Your task to perform on an android device: Show the shopping cart on costco. Add razer kraken to the cart on costco Image 0: 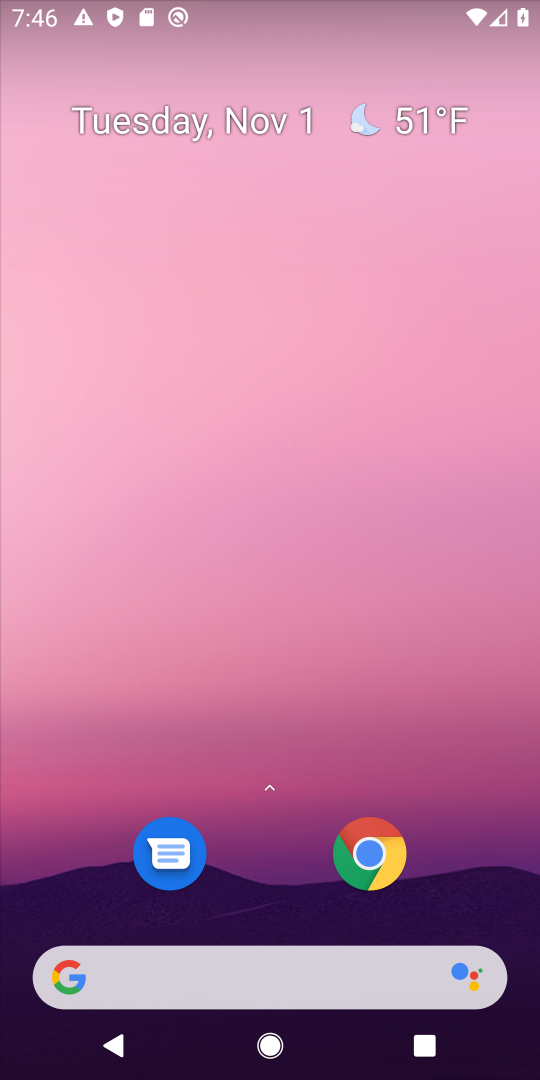
Step 0: click (373, 959)
Your task to perform on an android device: Show the shopping cart on costco. Add razer kraken to the cart on costco Image 1: 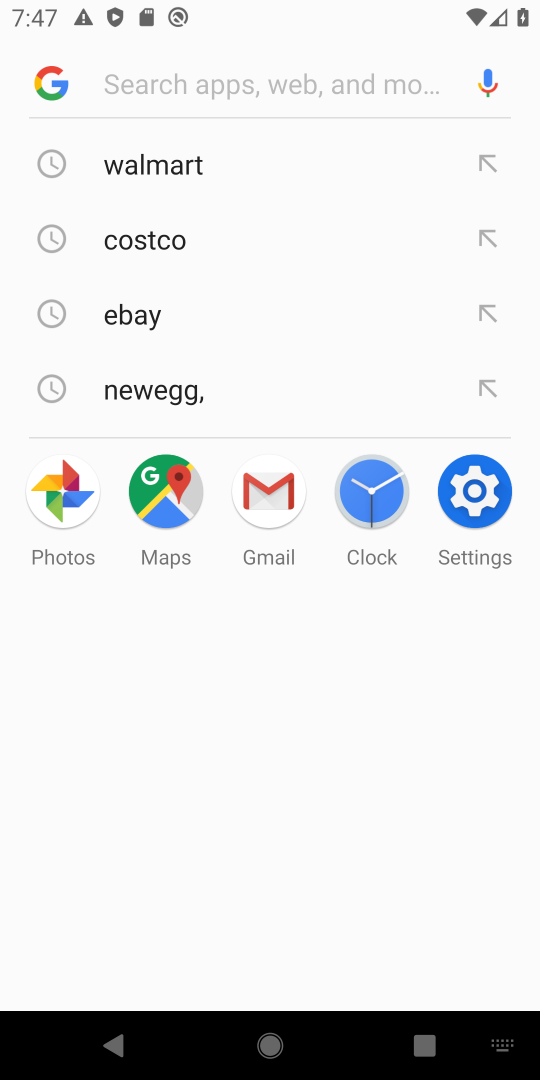
Step 1: type "costco"
Your task to perform on an android device: Show the shopping cart on costco. Add razer kraken to the cart on costco Image 2: 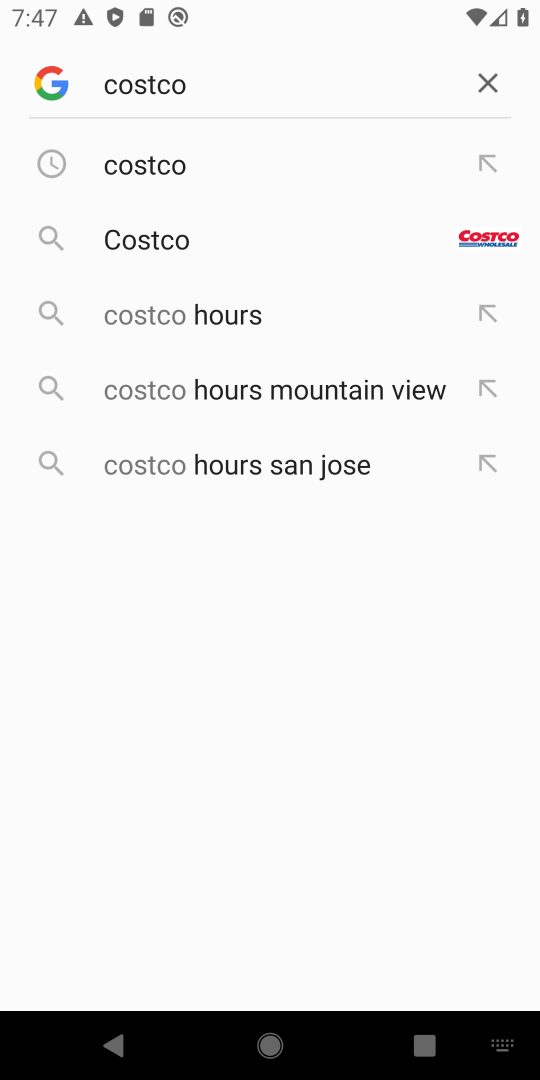
Step 2: click (171, 181)
Your task to perform on an android device: Show the shopping cart on costco. Add razer kraken to the cart on costco Image 3: 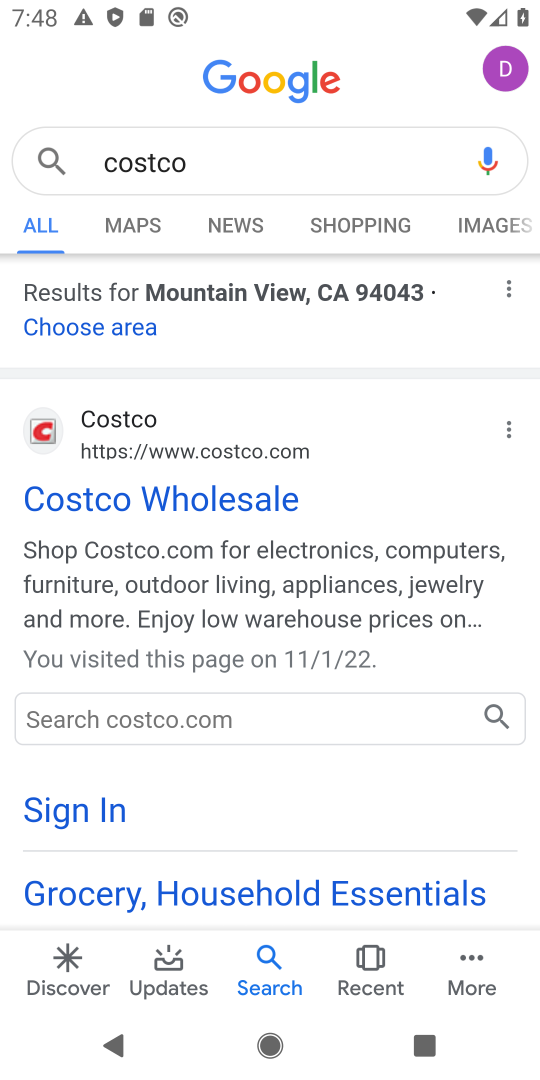
Step 3: click (274, 491)
Your task to perform on an android device: Show the shopping cart on costco. Add razer kraken to the cart on costco Image 4: 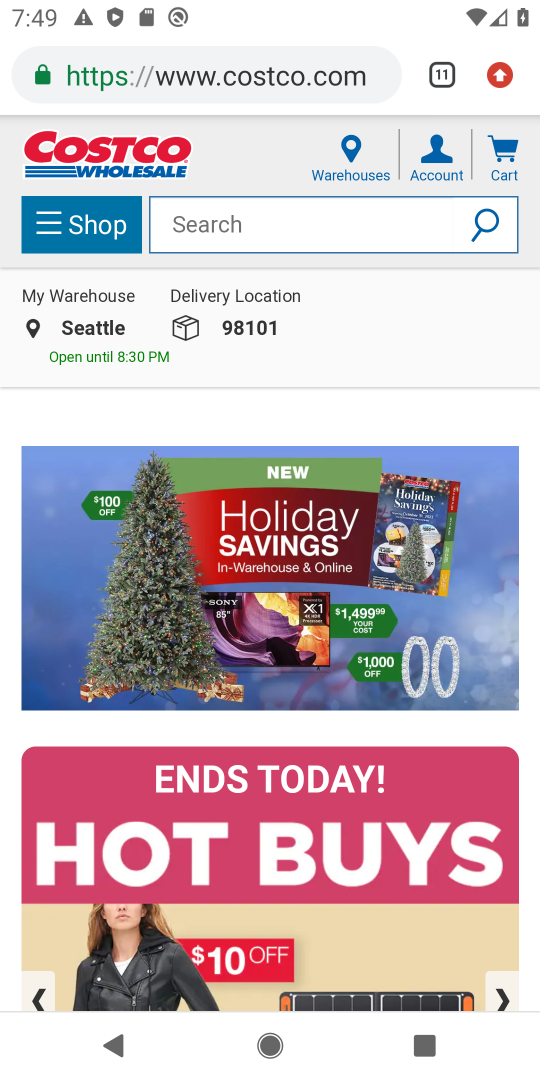
Step 4: click (222, 221)
Your task to perform on an android device: Show the shopping cart on costco. Add razer kraken to the cart on costco Image 5: 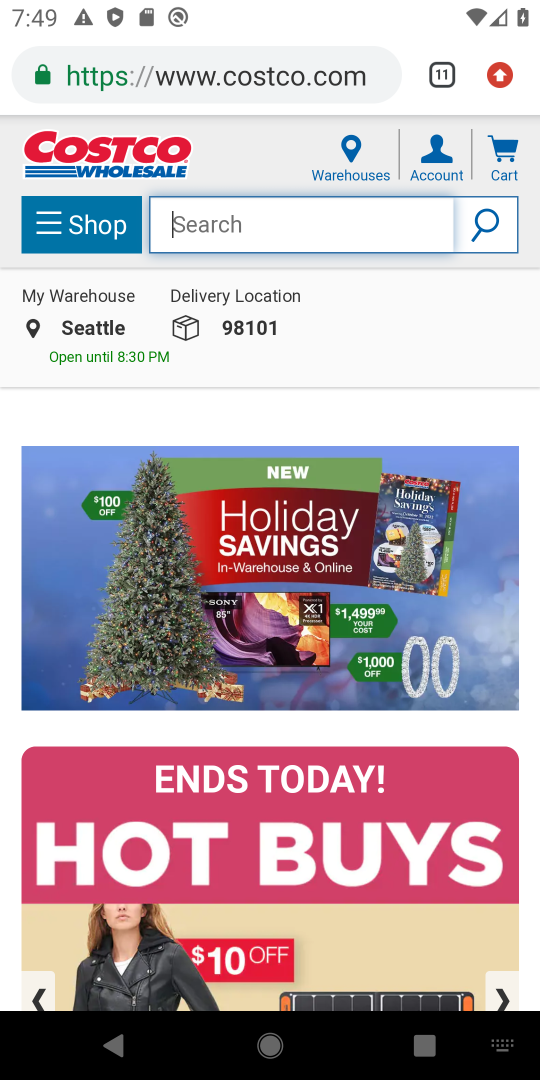
Step 5: type "razer karken"
Your task to perform on an android device: Show the shopping cart on costco. Add razer kraken to the cart on costco Image 6: 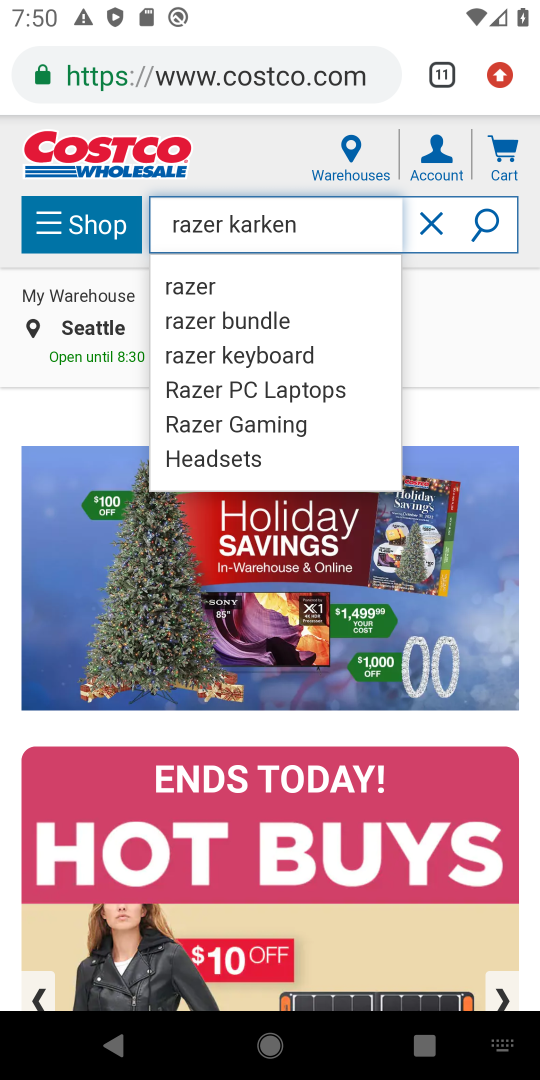
Step 6: click (467, 233)
Your task to perform on an android device: Show the shopping cart on costco. Add razer kraken to the cart on costco Image 7: 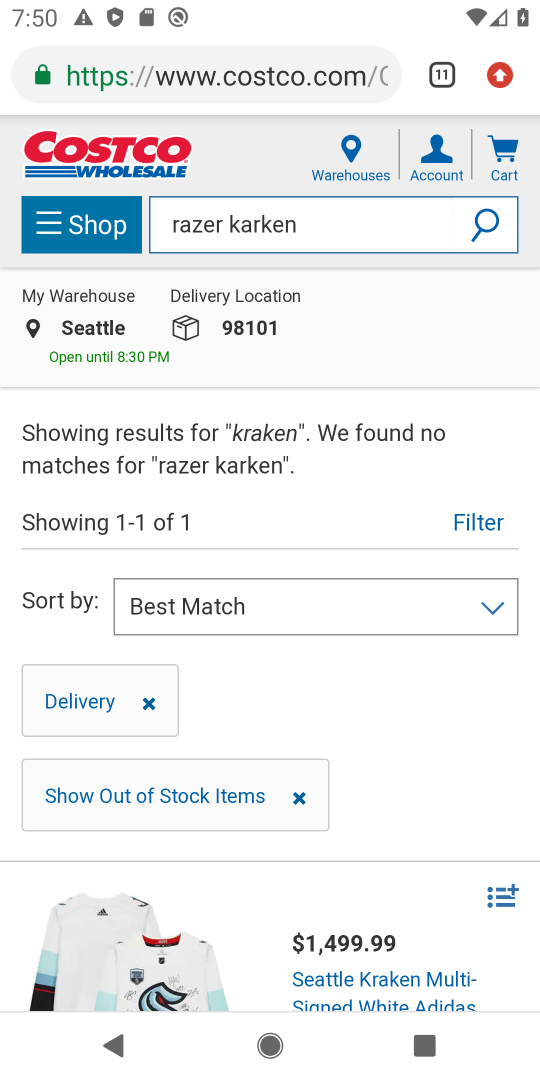
Step 7: task complete